Your task to perform on an android device: Turn off the flashlight Image 0: 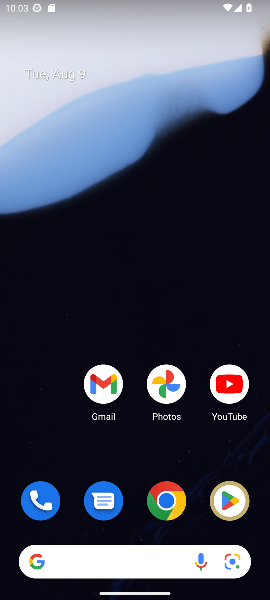
Step 0: task impossible